Your task to perform on an android device: turn pop-ups on in chrome Image 0: 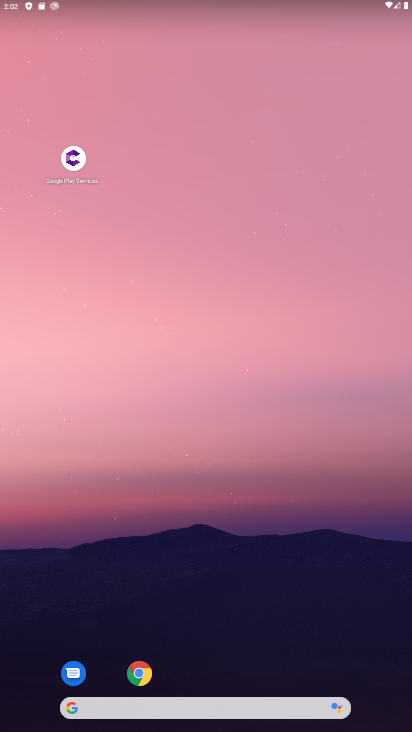
Step 0: click (139, 671)
Your task to perform on an android device: turn pop-ups on in chrome Image 1: 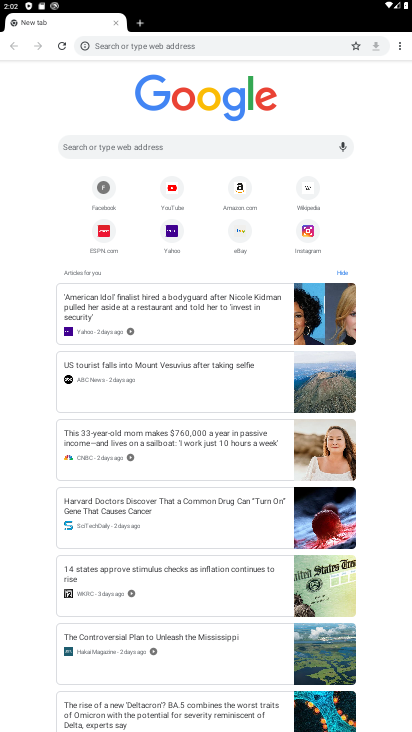
Step 1: click (399, 47)
Your task to perform on an android device: turn pop-ups on in chrome Image 2: 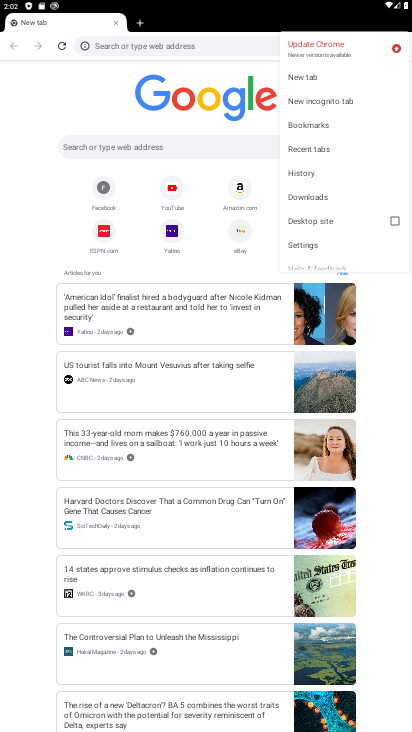
Step 2: click (299, 246)
Your task to perform on an android device: turn pop-ups on in chrome Image 3: 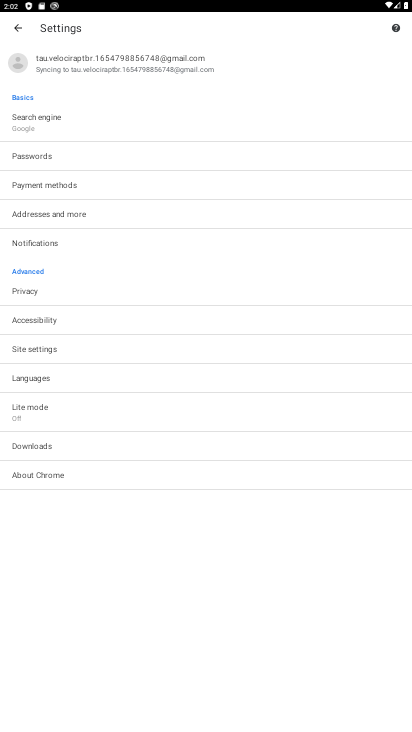
Step 3: click (42, 347)
Your task to perform on an android device: turn pop-ups on in chrome Image 4: 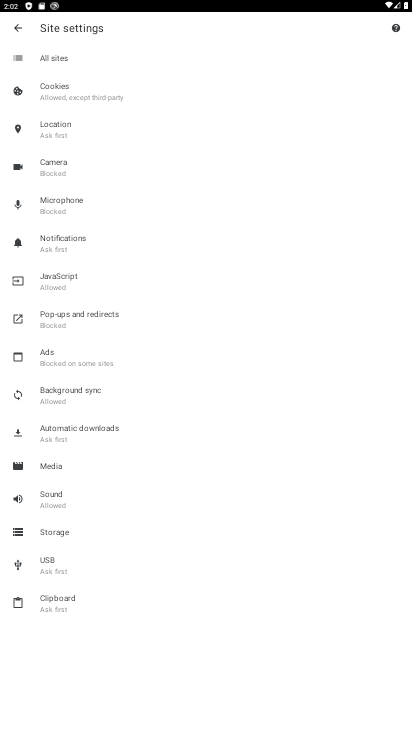
Step 4: click (56, 311)
Your task to perform on an android device: turn pop-ups on in chrome Image 5: 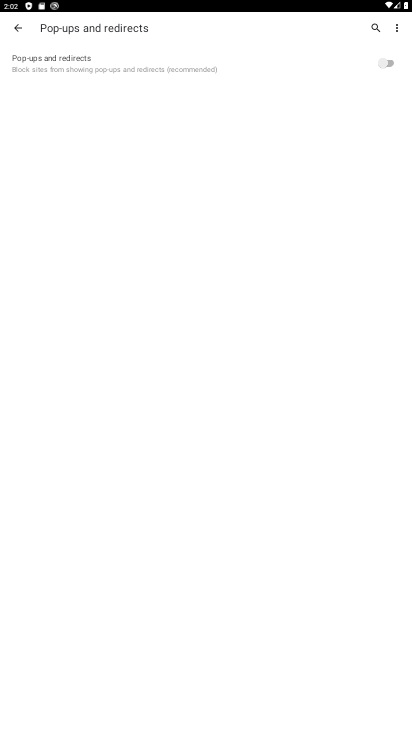
Step 5: click (381, 63)
Your task to perform on an android device: turn pop-ups on in chrome Image 6: 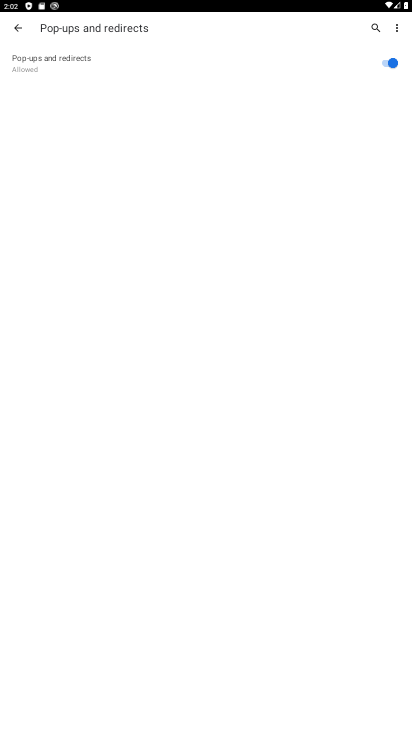
Step 6: task complete